Your task to perform on an android device: snooze an email in the gmail app Image 0: 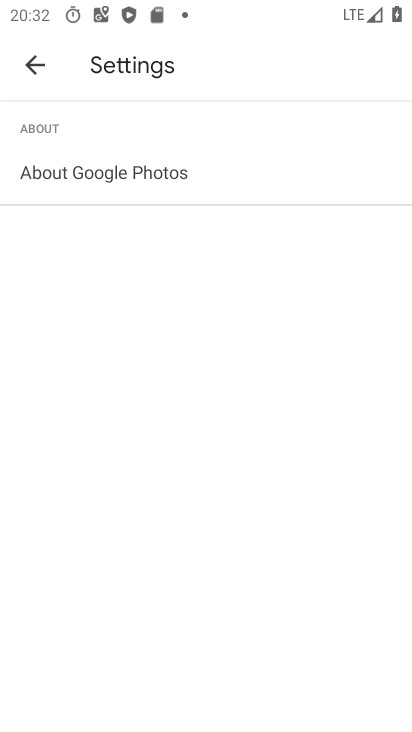
Step 0: press home button
Your task to perform on an android device: snooze an email in the gmail app Image 1: 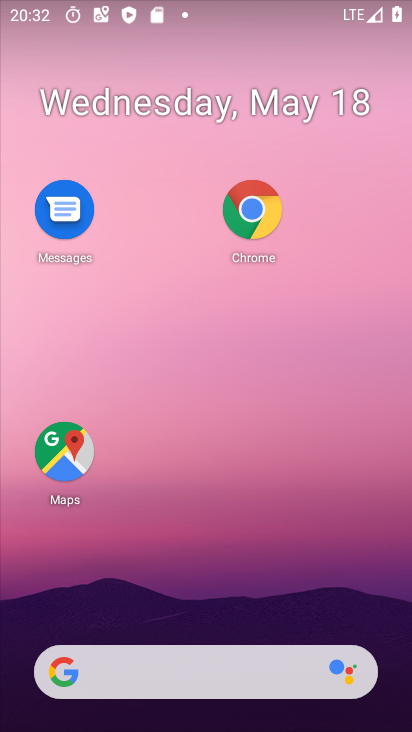
Step 1: drag from (215, 671) to (202, 287)
Your task to perform on an android device: snooze an email in the gmail app Image 2: 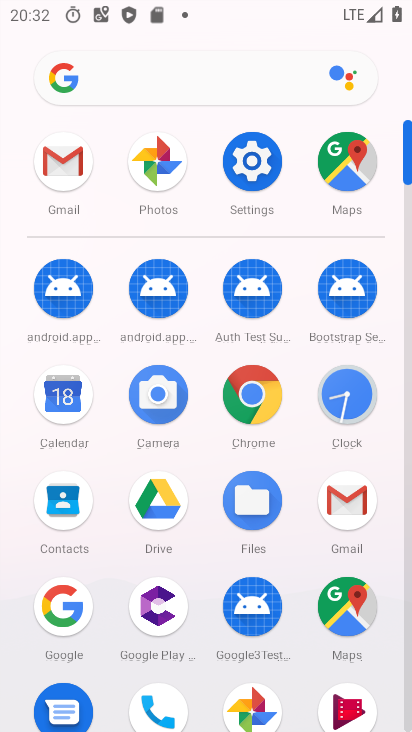
Step 2: click (45, 173)
Your task to perform on an android device: snooze an email in the gmail app Image 3: 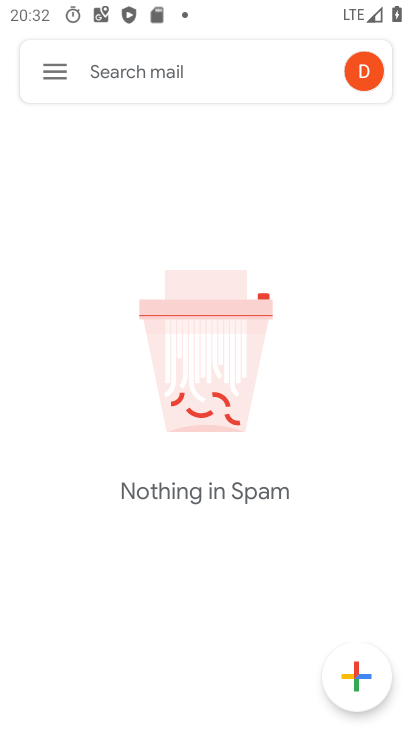
Step 3: click (53, 75)
Your task to perform on an android device: snooze an email in the gmail app Image 4: 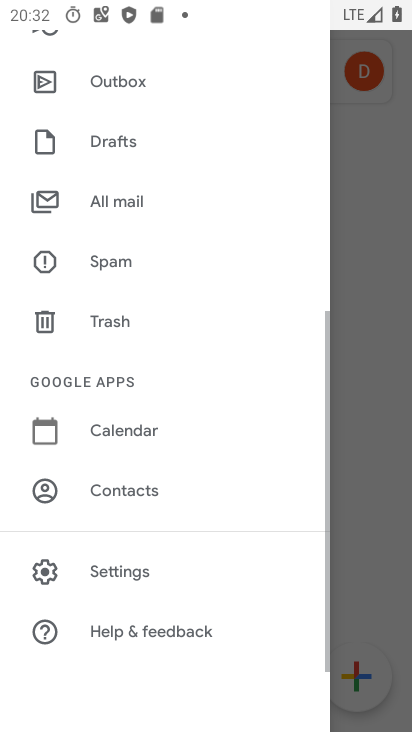
Step 4: click (159, 214)
Your task to perform on an android device: snooze an email in the gmail app Image 5: 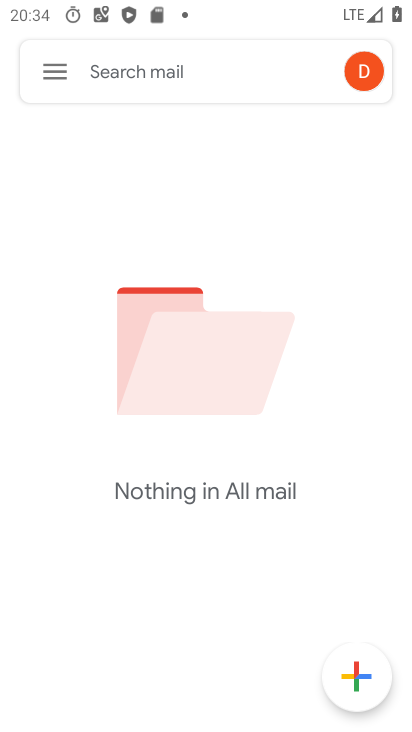
Step 5: task complete